Your task to perform on an android device: Open Wikipedia Image 0: 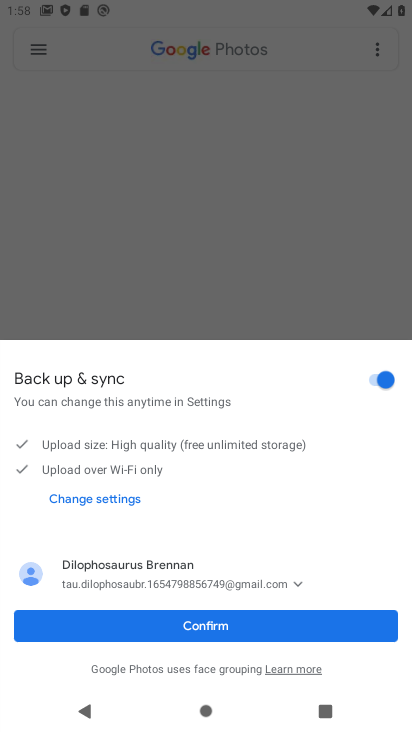
Step 0: press home button
Your task to perform on an android device: Open Wikipedia Image 1: 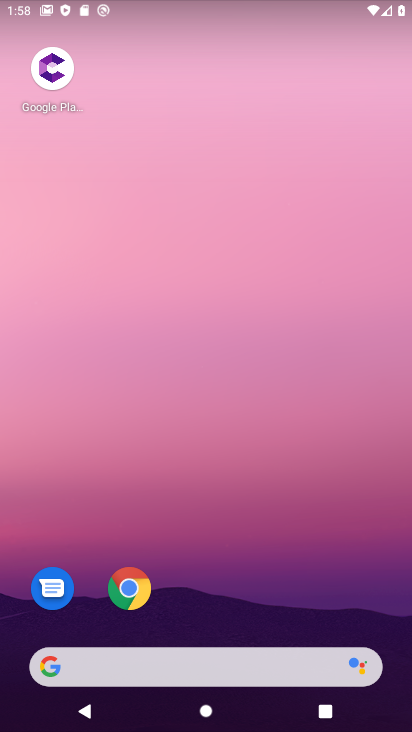
Step 1: click (149, 599)
Your task to perform on an android device: Open Wikipedia Image 2: 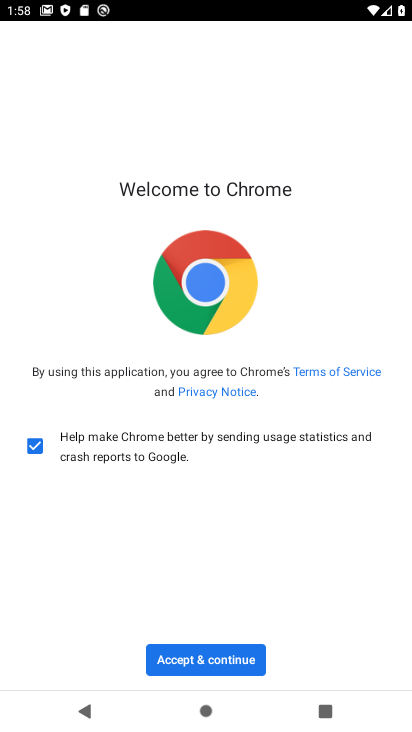
Step 2: click (244, 673)
Your task to perform on an android device: Open Wikipedia Image 3: 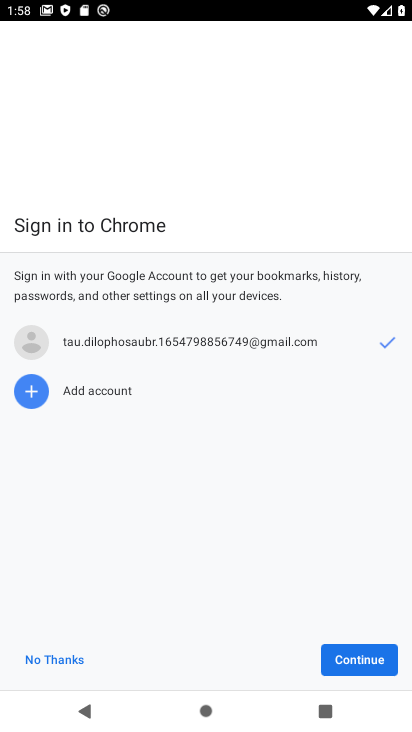
Step 3: click (356, 653)
Your task to perform on an android device: Open Wikipedia Image 4: 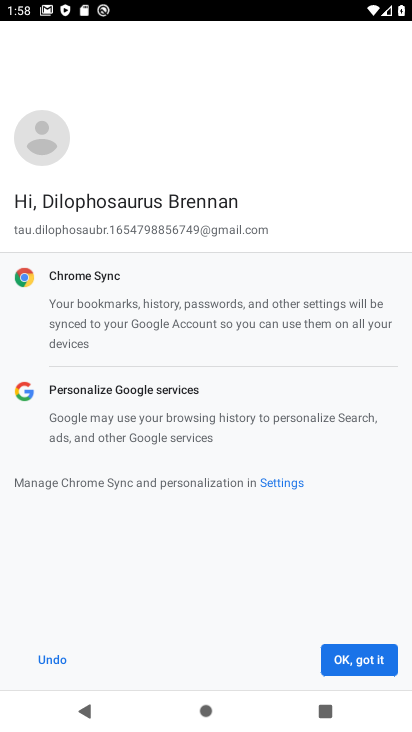
Step 4: click (351, 647)
Your task to perform on an android device: Open Wikipedia Image 5: 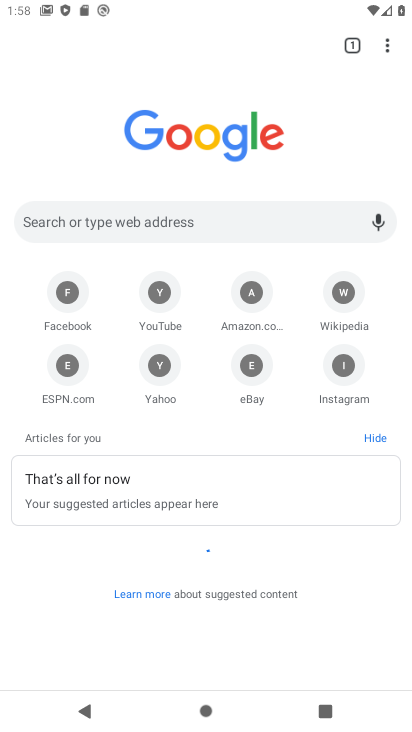
Step 5: click (178, 224)
Your task to perform on an android device: Open Wikipedia Image 6: 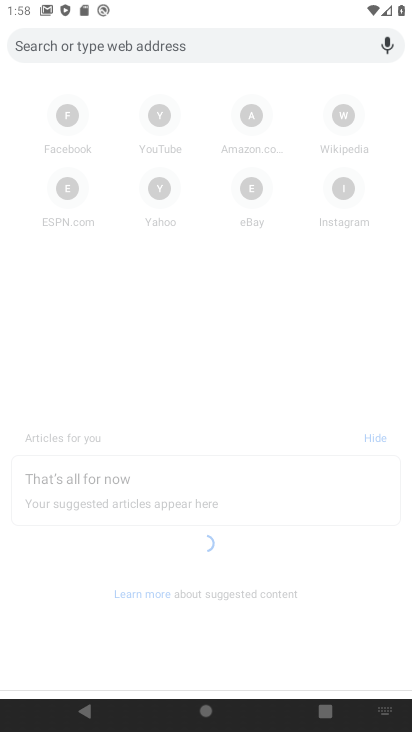
Step 6: click (334, 118)
Your task to perform on an android device: Open Wikipedia Image 7: 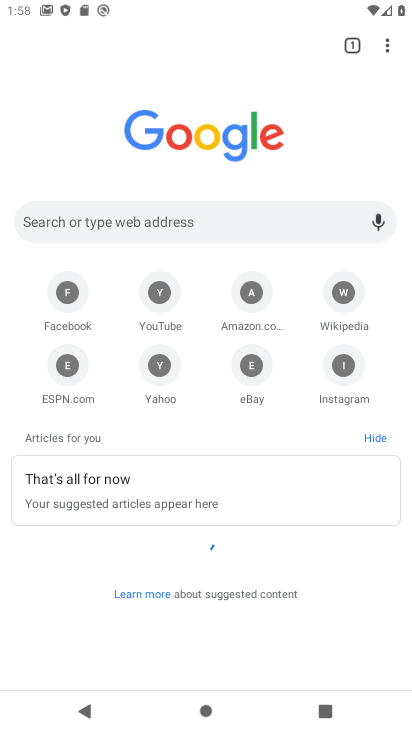
Step 7: click (348, 286)
Your task to perform on an android device: Open Wikipedia Image 8: 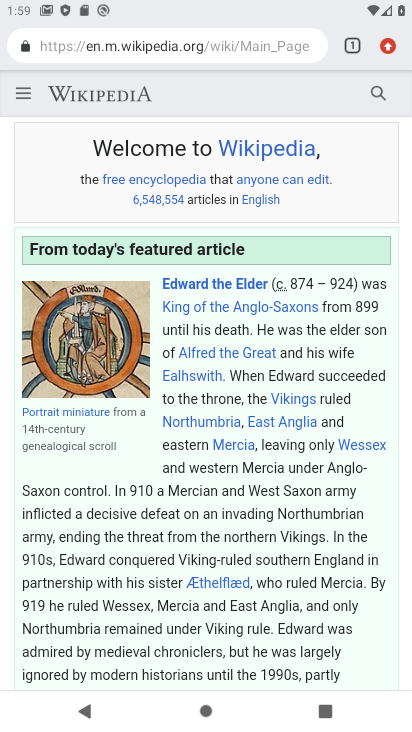
Step 8: task complete